Your task to perform on an android device: Open accessibility settings Image 0: 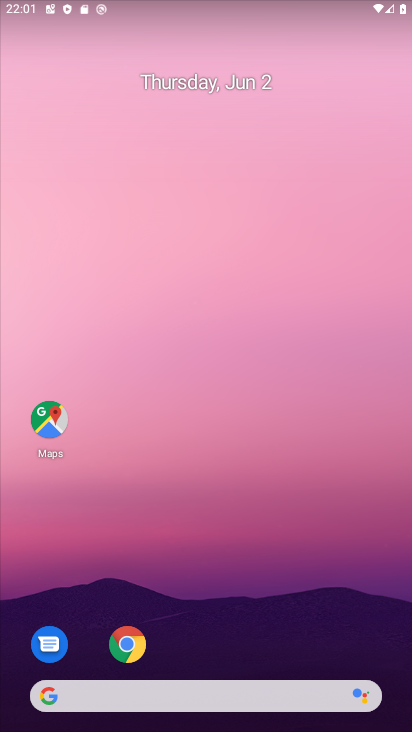
Step 0: drag from (191, 658) to (228, 144)
Your task to perform on an android device: Open accessibility settings Image 1: 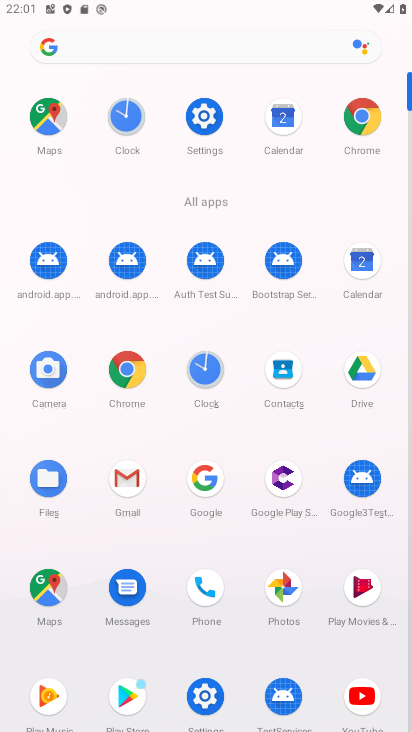
Step 1: click (194, 142)
Your task to perform on an android device: Open accessibility settings Image 2: 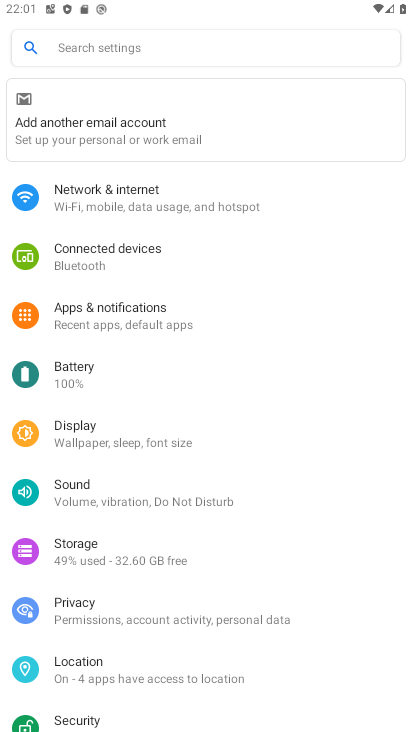
Step 2: drag from (154, 653) to (139, 316)
Your task to perform on an android device: Open accessibility settings Image 3: 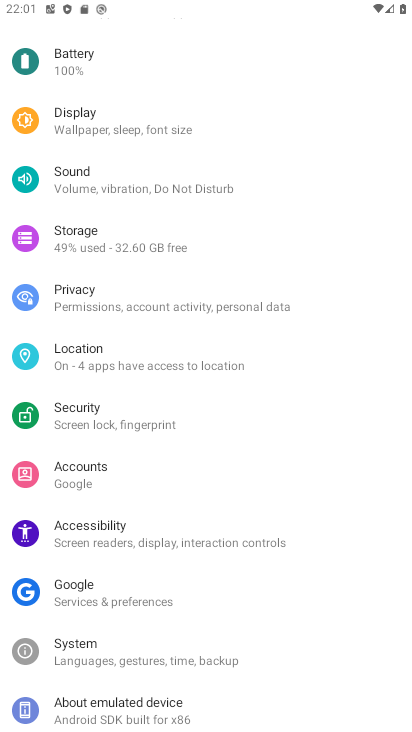
Step 3: click (106, 539)
Your task to perform on an android device: Open accessibility settings Image 4: 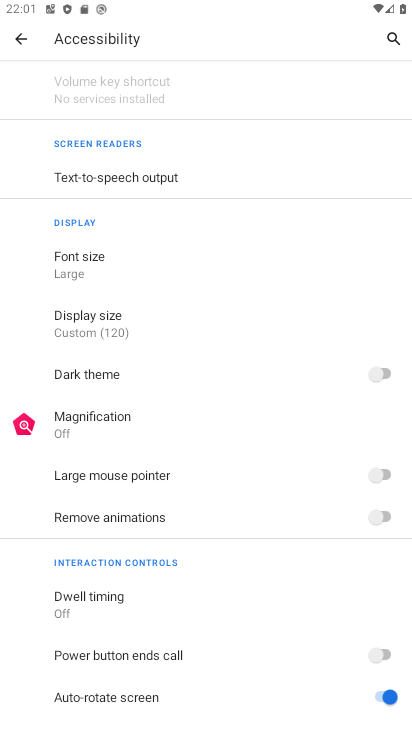
Step 4: task complete